Your task to perform on an android device: Go to calendar. Show me events next week Image 0: 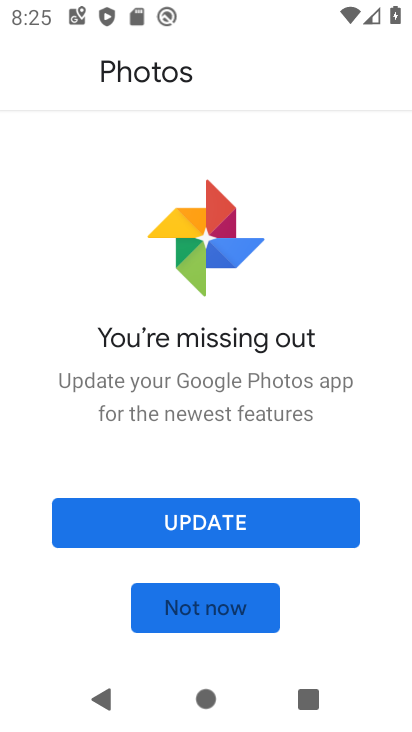
Step 0: press home button
Your task to perform on an android device: Go to calendar. Show me events next week Image 1: 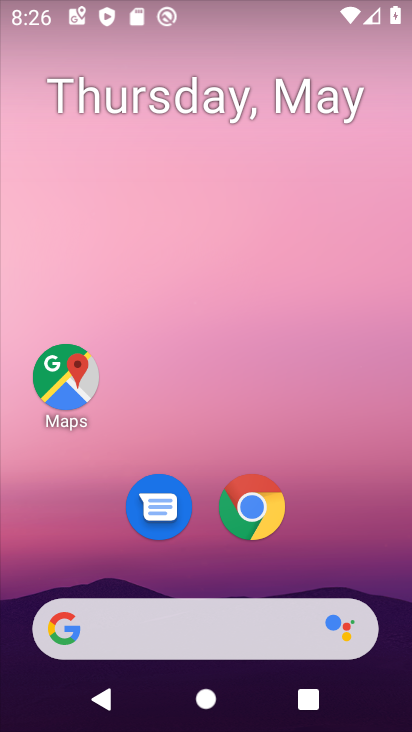
Step 1: drag from (366, 536) to (357, 98)
Your task to perform on an android device: Go to calendar. Show me events next week Image 2: 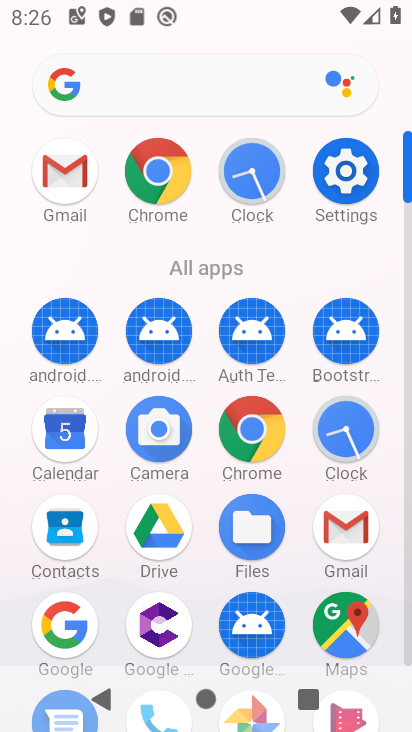
Step 2: click (67, 425)
Your task to perform on an android device: Go to calendar. Show me events next week Image 3: 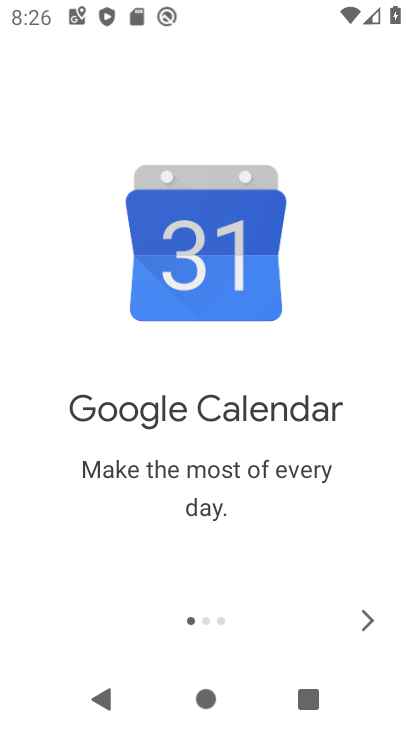
Step 3: click (368, 615)
Your task to perform on an android device: Go to calendar. Show me events next week Image 4: 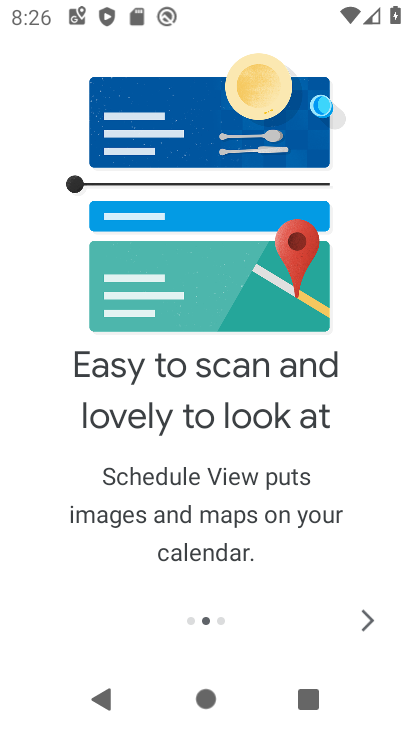
Step 4: click (358, 615)
Your task to perform on an android device: Go to calendar. Show me events next week Image 5: 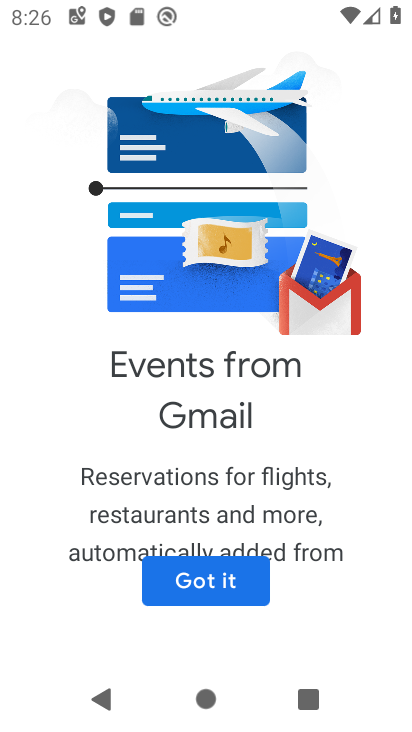
Step 5: click (239, 583)
Your task to perform on an android device: Go to calendar. Show me events next week Image 6: 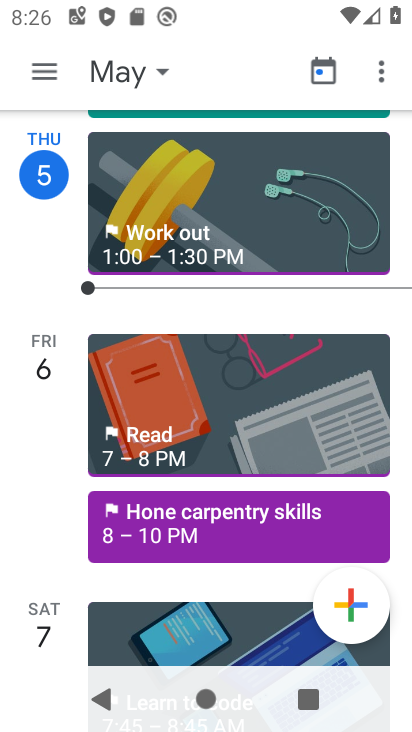
Step 6: click (124, 75)
Your task to perform on an android device: Go to calendar. Show me events next week Image 7: 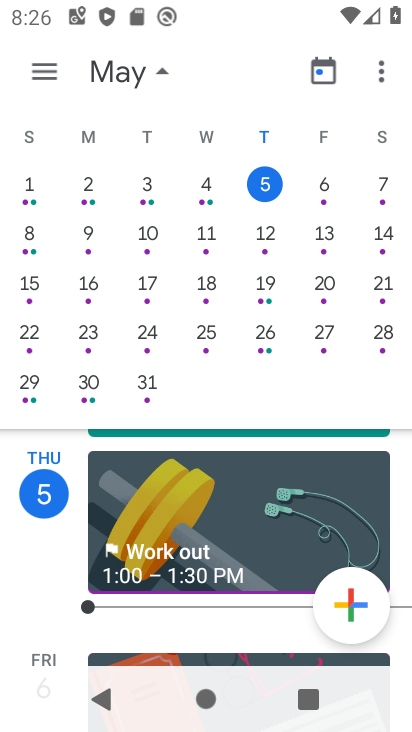
Step 7: click (24, 239)
Your task to perform on an android device: Go to calendar. Show me events next week Image 8: 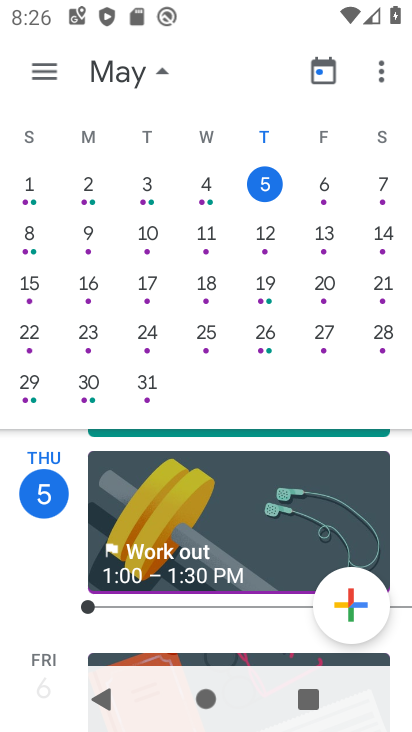
Step 8: click (29, 236)
Your task to perform on an android device: Go to calendar. Show me events next week Image 9: 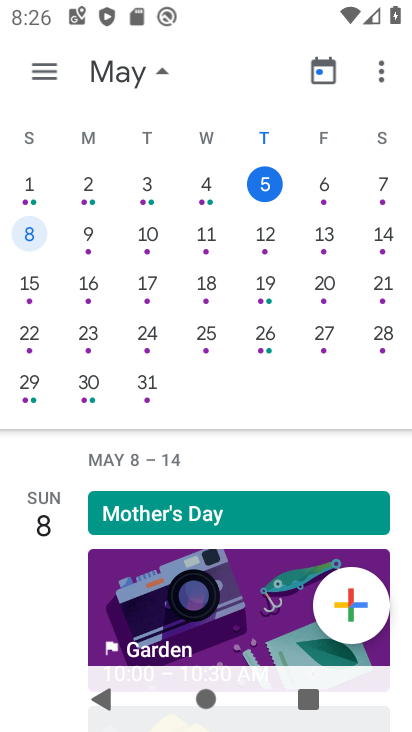
Step 9: task complete